Your task to perform on an android device: Go to display settings Image 0: 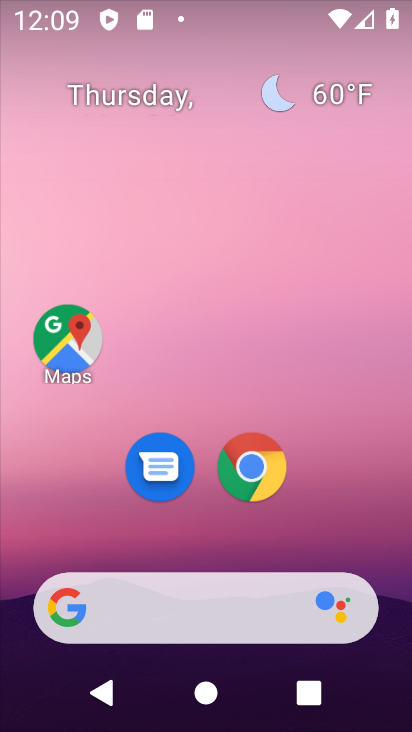
Step 0: drag from (214, 539) to (262, 0)
Your task to perform on an android device: Go to display settings Image 1: 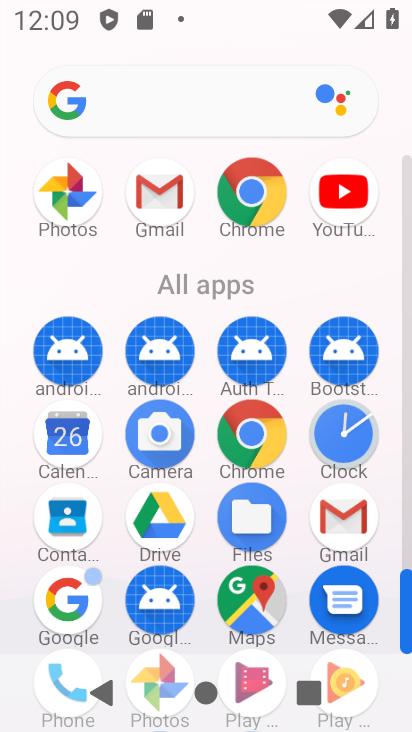
Step 1: drag from (214, 515) to (264, 129)
Your task to perform on an android device: Go to display settings Image 2: 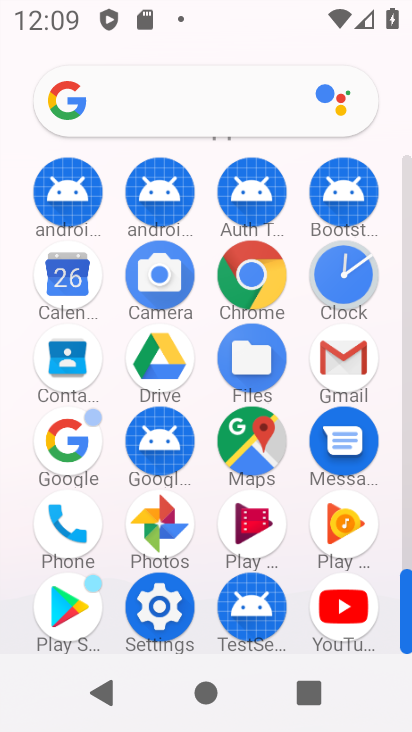
Step 2: click (153, 628)
Your task to perform on an android device: Go to display settings Image 3: 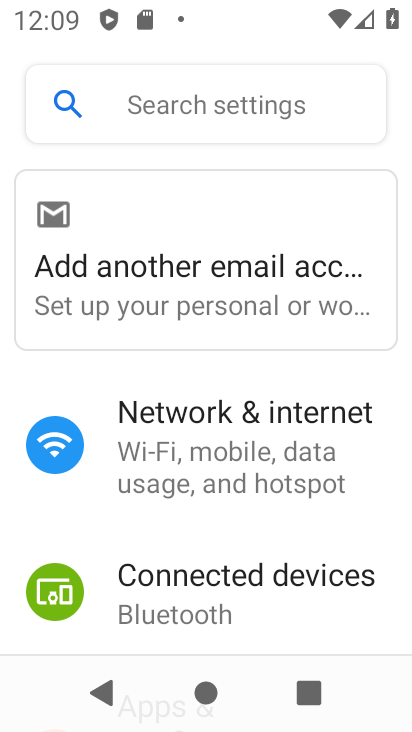
Step 3: drag from (272, 523) to (297, 126)
Your task to perform on an android device: Go to display settings Image 4: 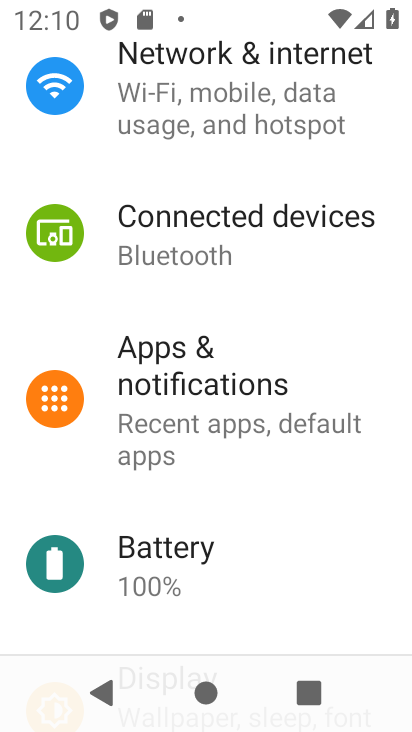
Step 4: drag from (236, 558) to (262, 199)
Your task to perform on an android device: Go to display settings Image 5: 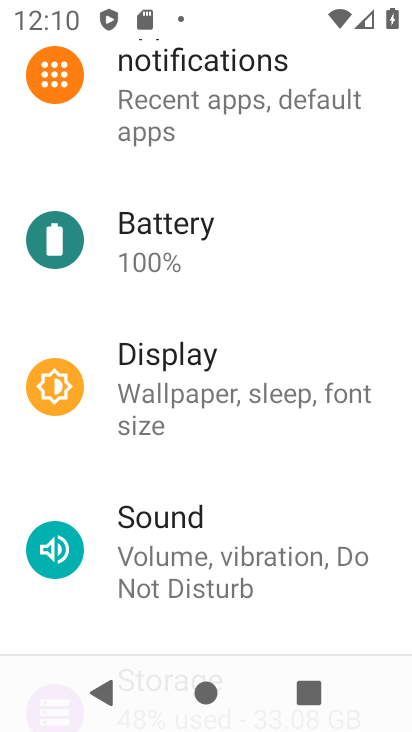
Step 5: drag from (198, 417) to (214, 327)
Your task to perform on an android device: Go to display settings Image 6: 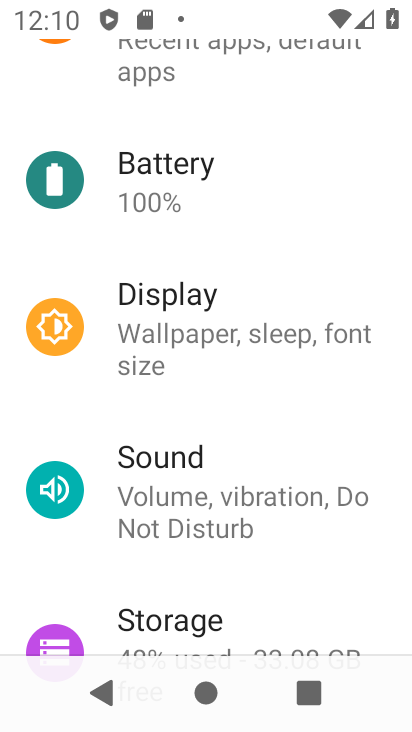
Step 6: click (152, 314)
Your task to perform on an android device: Go to display settings Image 7: 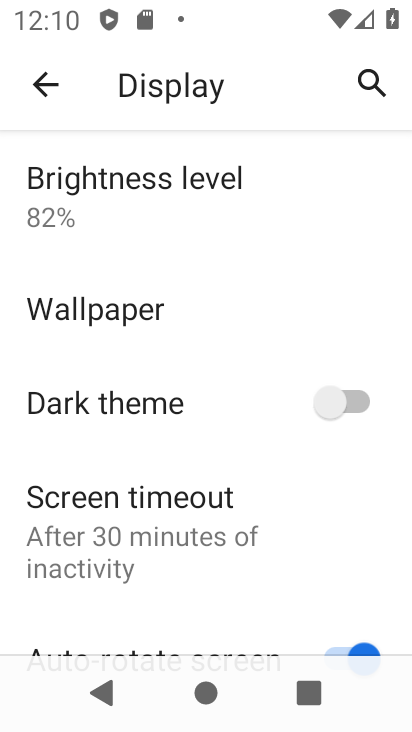
Step 7: task complete